Your task to perform on an android device: turn on translation in the chrome app Image 0: 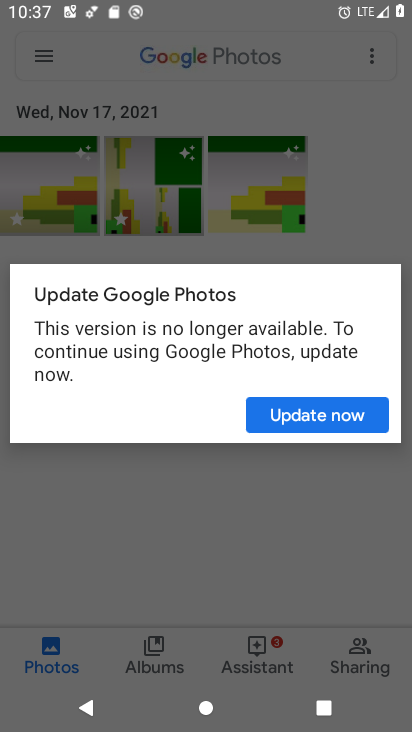
Step 0: press home button
Your task to perform on an android device: turn on translation in the chrome app Image 1: 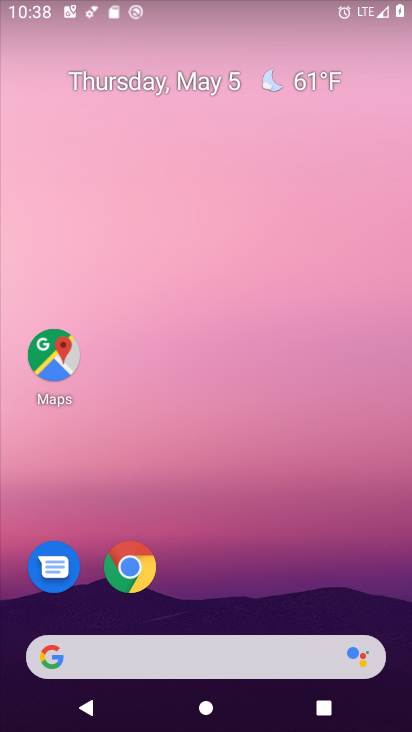
Step 1: click (140, 565)
Your task to perform on an android device: turn on translation in the chrome app Image 2: 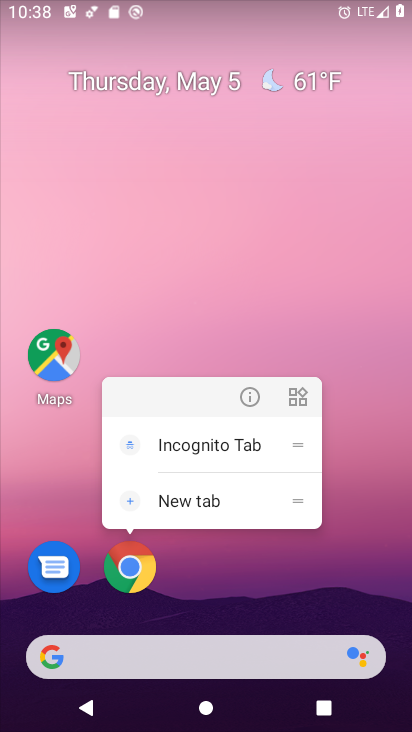
Step 2: click (138, 565)
Your task to perform on an android device: turn on translation in the chrome app Image 3: 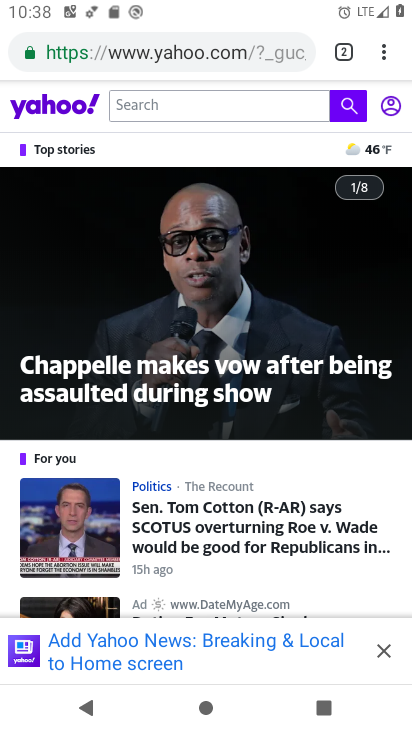
Step 3: click (387, 55)
Your task to perform on an android device: turn on translation in the chrome app Image 4: 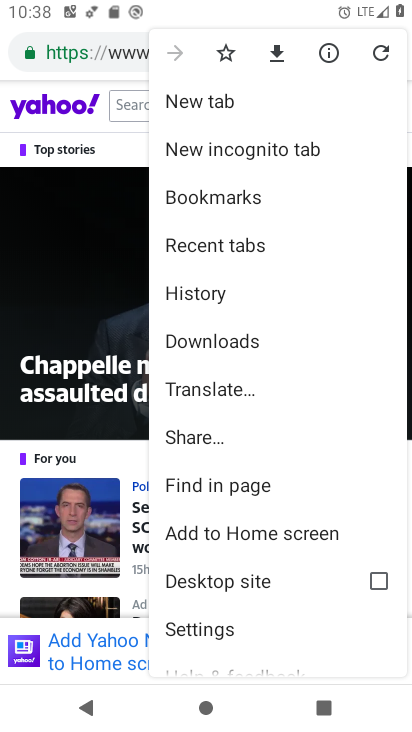
Step 4: click (240, 627)
Your task to perform on an android device: turn on translation in the chrome app Image 5: 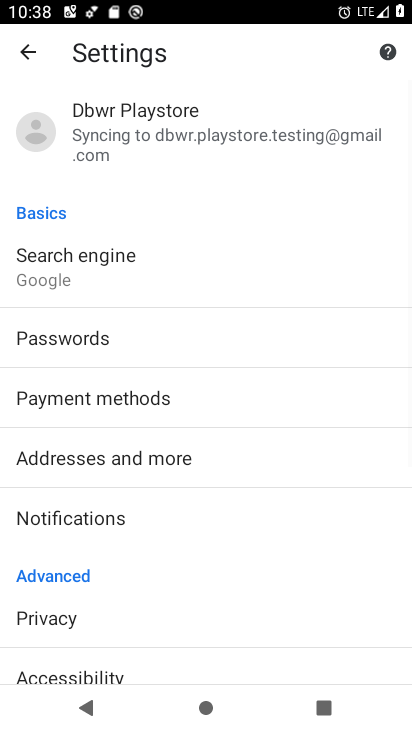
Step 5: drag from (190, 606) to (178, 332)
Your task to perform on an android device: turn on translation in the chrome app Image 6: 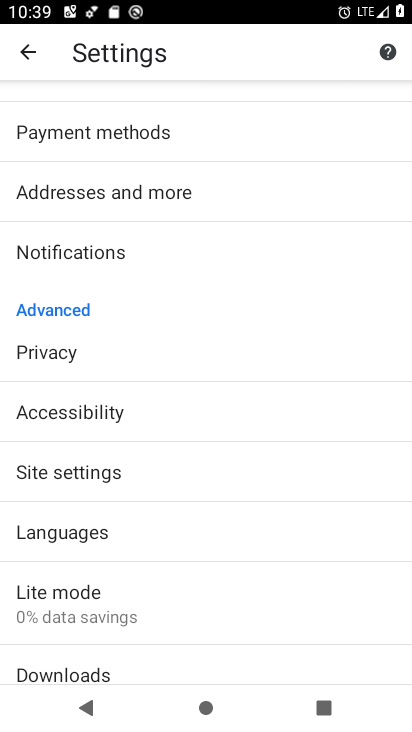
Step 6: drag from (160, 567) to (162, 351)
Your task to perform on an android device: turn on translation in the chrome app Image 7: 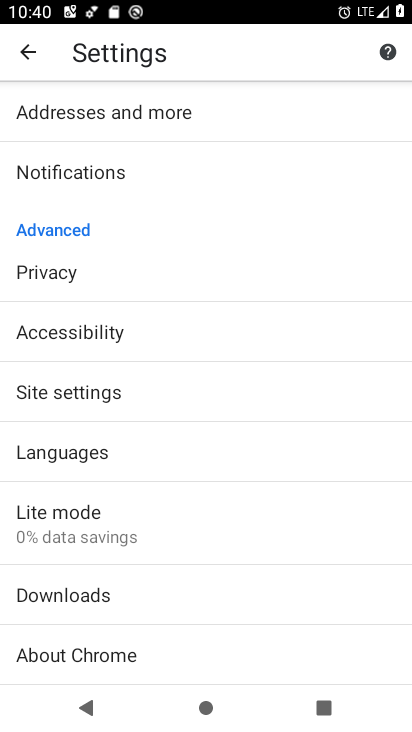
Step 7: click (122, 455)
Your task to perform on an android device: turn on translation in the chrome app Image 8: 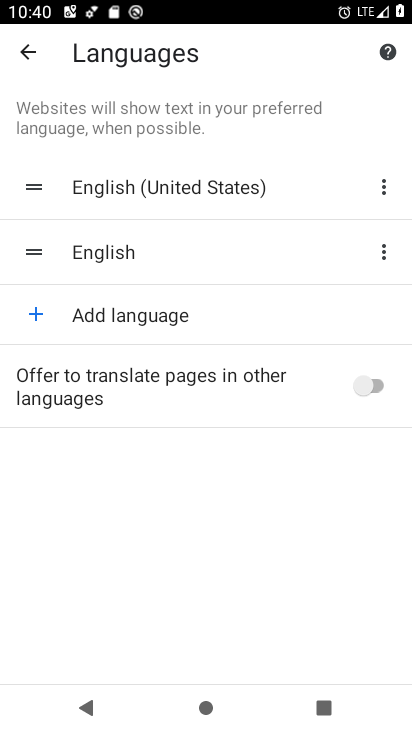
Step 8: click (382, 386)
Your task to perform on an android device: turn on translation in the chrome app Image 9: 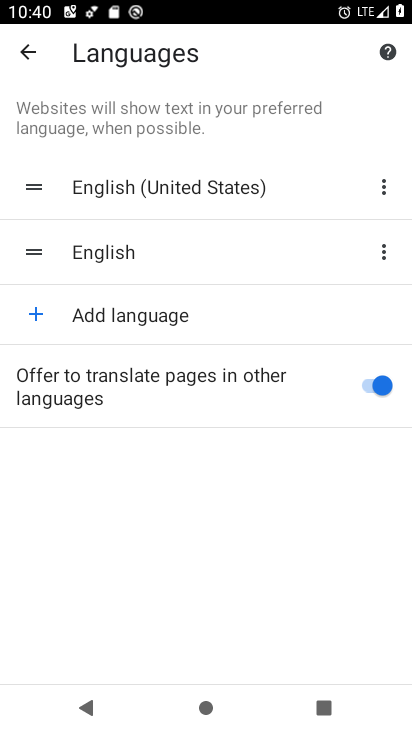
Step 9: task complete